Your task to perform on an android device: change the clock style Image 0: 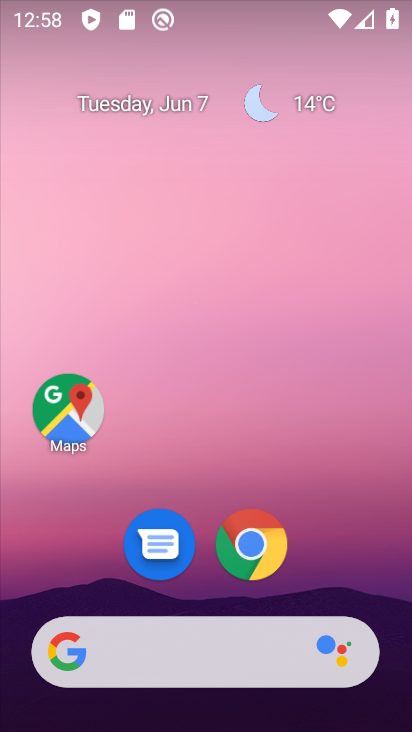
Step 0: click (358, 572)
Your task to perform on an android device: change the clock style Image 1: 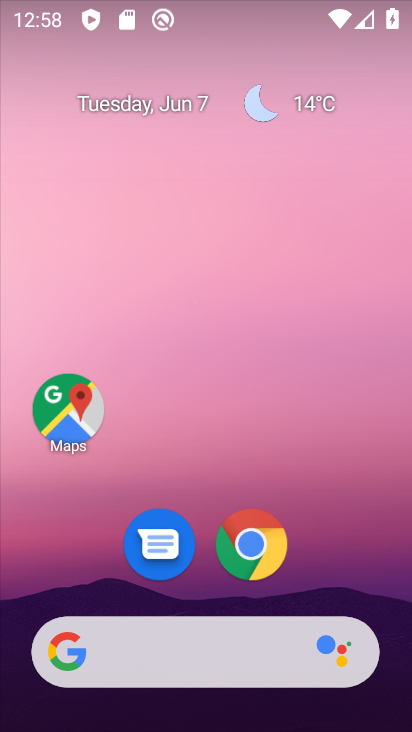
Step 1: drag from (228, 624) to (218, 49)
Your task to perform on an android device: change the clock style Image 2: 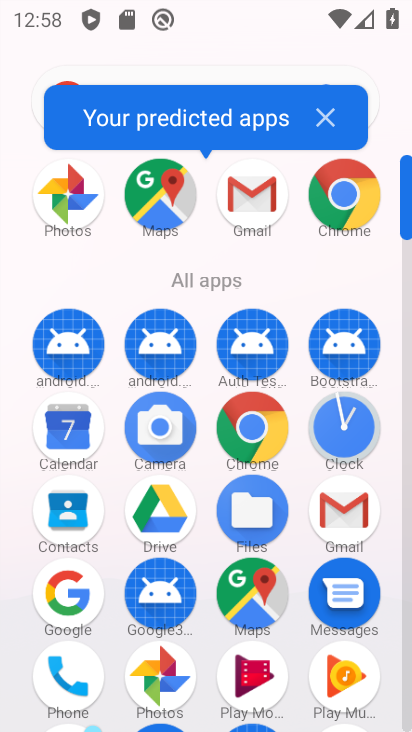
Step 2: click (346, 417)
Your task to perform on an android device: change the clock style Image 3: 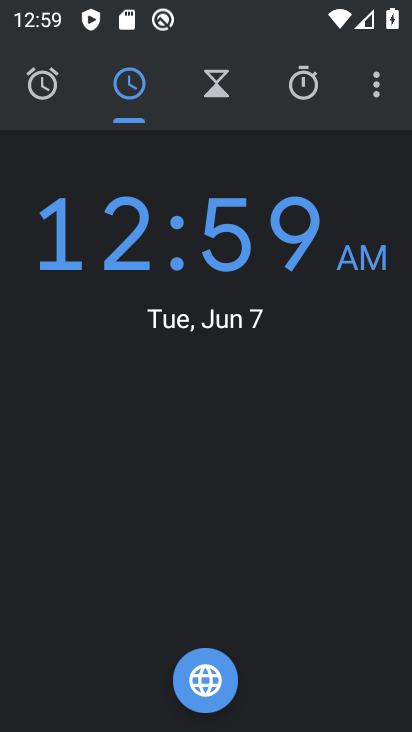
Step 3: click (368, 97)
Your task to perform on an android device: change the clock style Image 4: 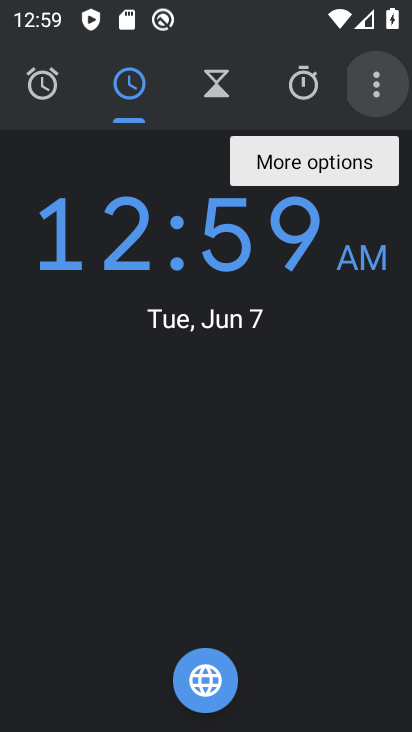
Step 4: click (368, 97)
Your task to perform on an android device: change the clock style Image 5: 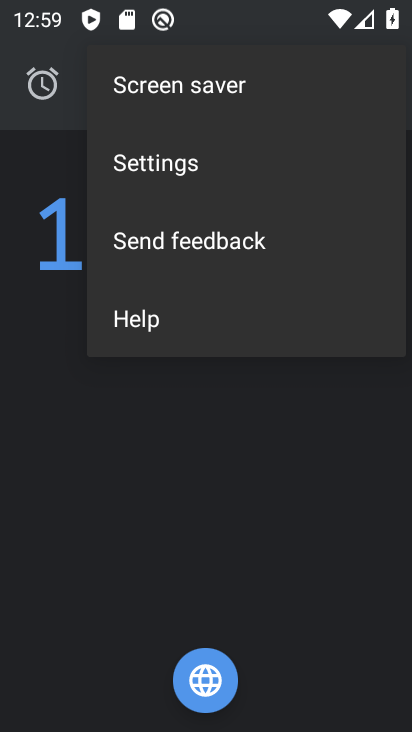
Step 5: click (197, 164)
Your task to perform on an android device: change the clock style Image 6: 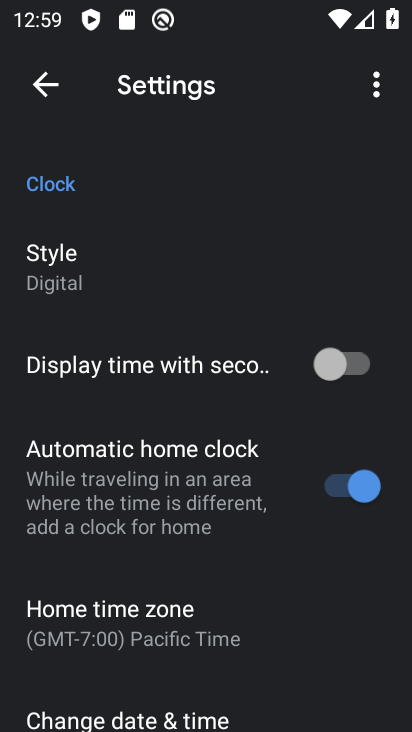
Step 6: click (77, 276)
Your task to perform on an android device: change the clock style Image 7: 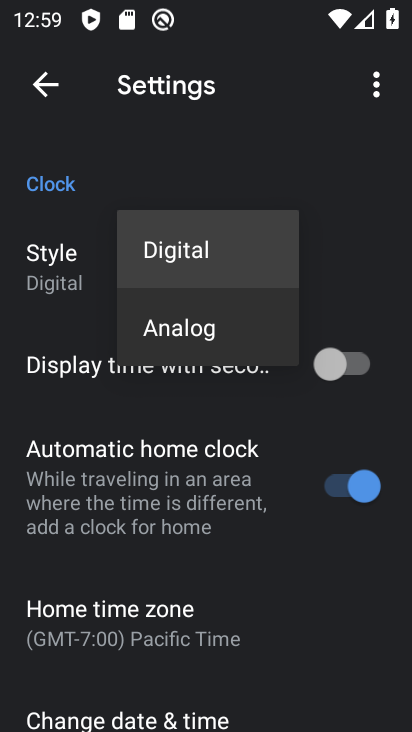
Step 7: click (183, 323)
Your task to perform on an android device: change the clock style Image 8: 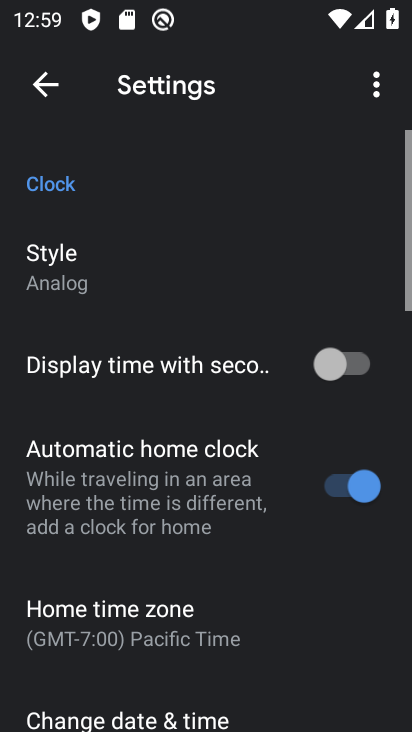
Step 8: task complete